Your task to perform on an android device: turn on airplane mode Image 0: 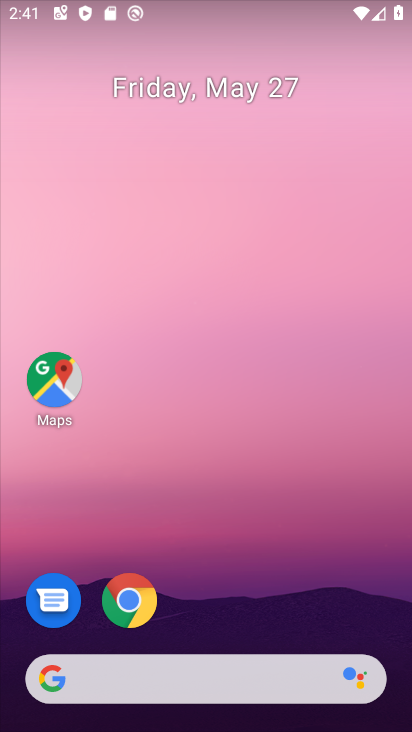
Step 0: drag from (347, 8) to (320, 224)
Your task to perform on an android device: turn on airplane mode Image 1: 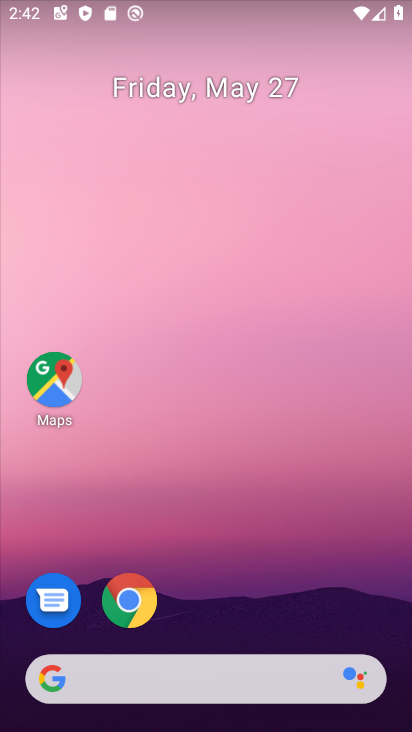
Step 1: drag from (384, 4) to (274, 701)
Your task to perform on an android device: turn on airplane mode Image 2: 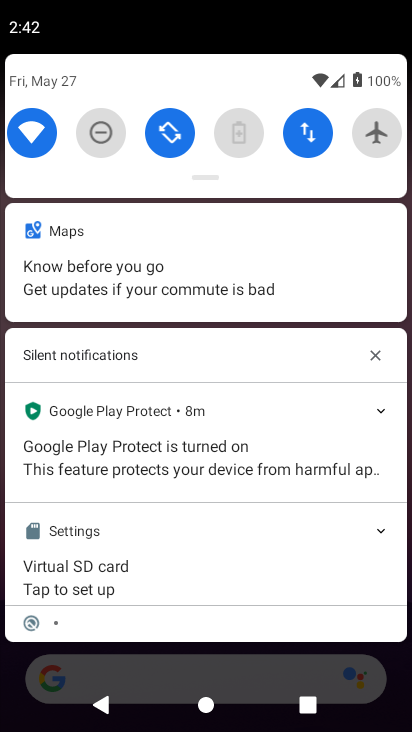
Step 2: click (385, 127)
Your task to perform on an android device: turn on airplane mode Image 3: 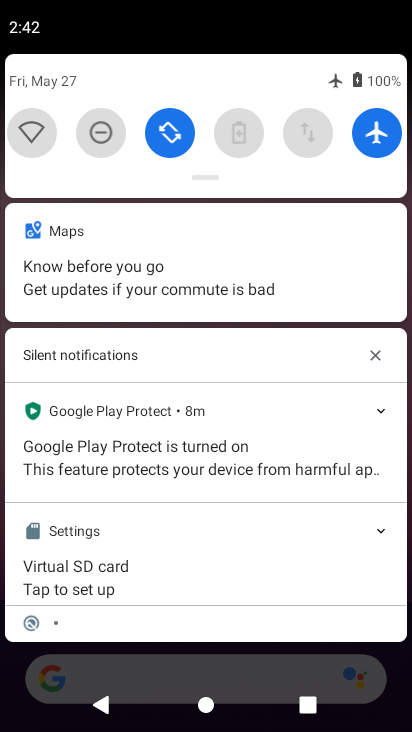
Step 3: task complete